Your task to perform on an android device: uninstall "Contacts" Image 0: 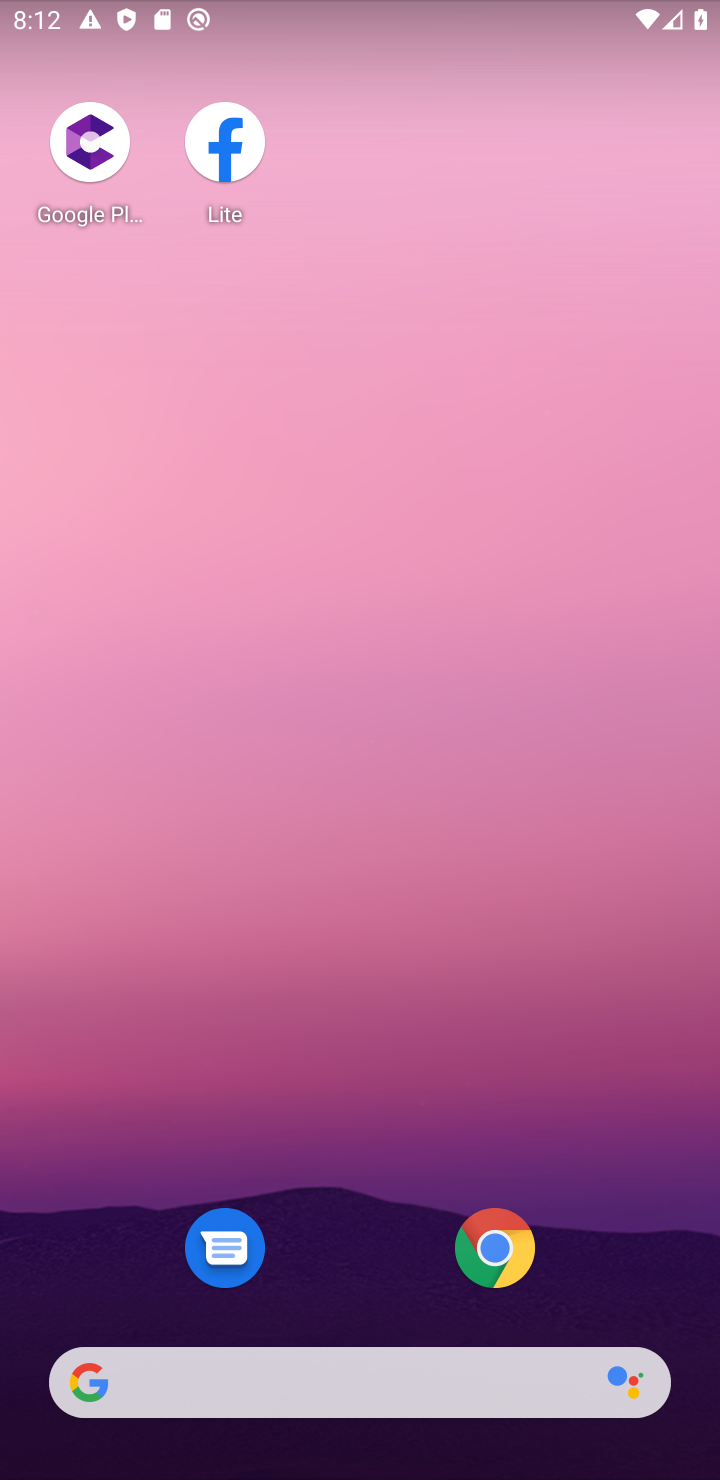
Step 0: click (335, 1272)
Your task to perform on an android device: uninstall "Contacts" Image 1: 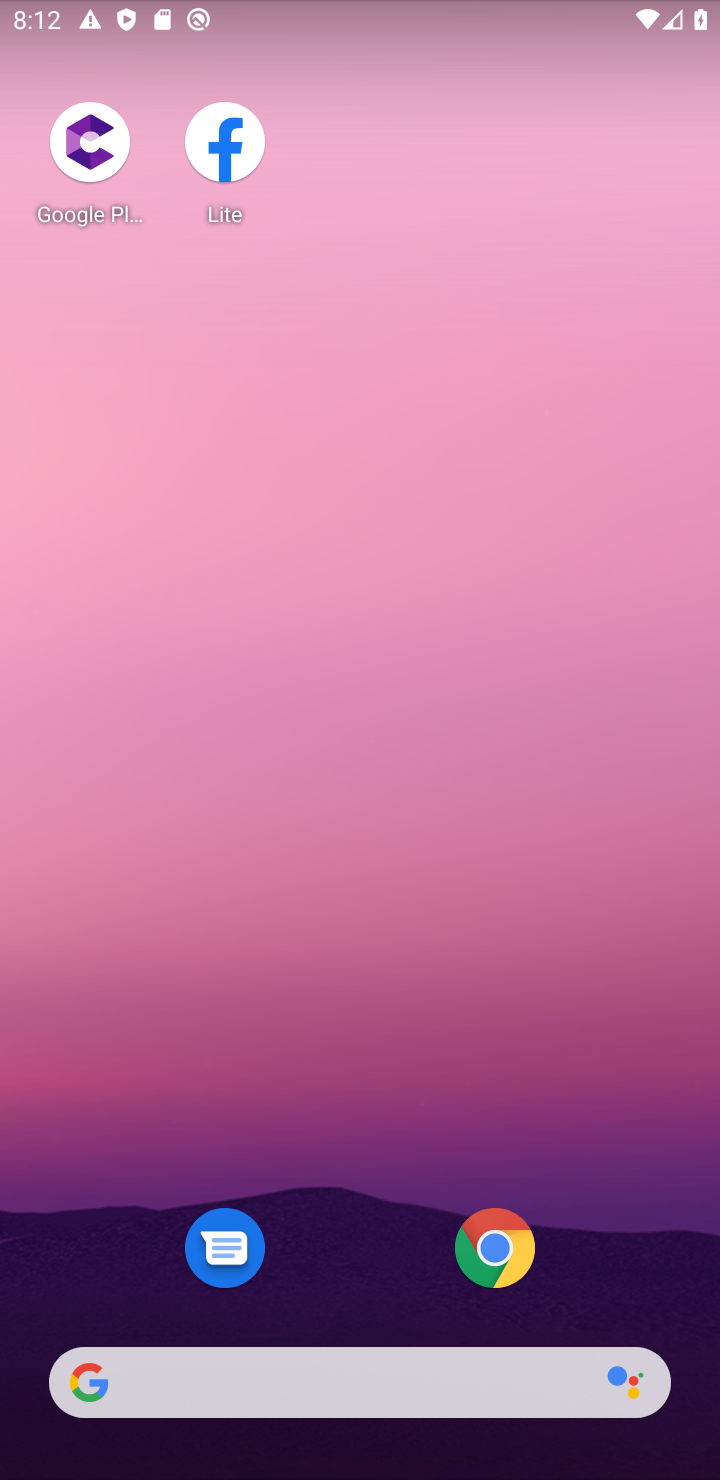
Step 1: drag from (335, 1272) to (8, 37)
Your task to perform on an android device: uninstall "Contacts" Image 2: 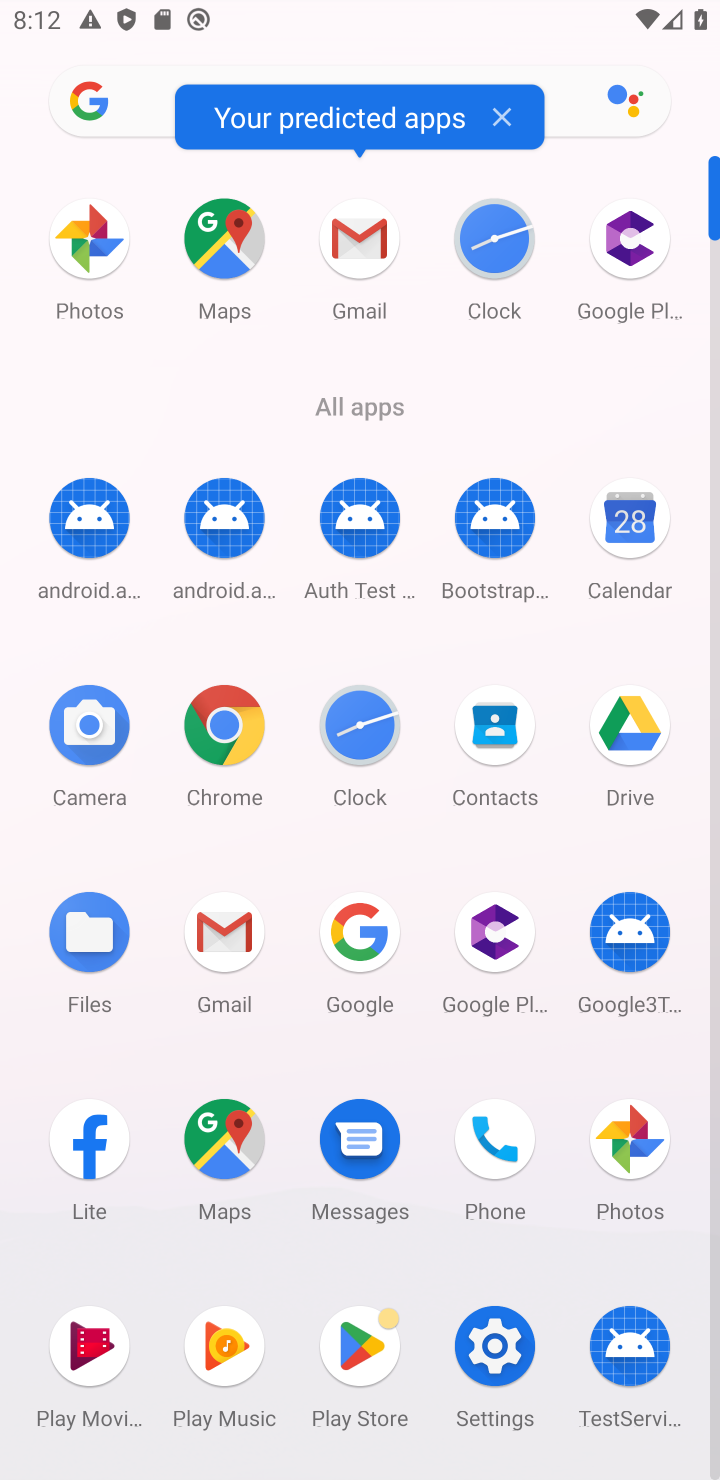
Step 2: click (487, 1318)
Your task to perform on an android device: uninstall "Contacts" Image 3: 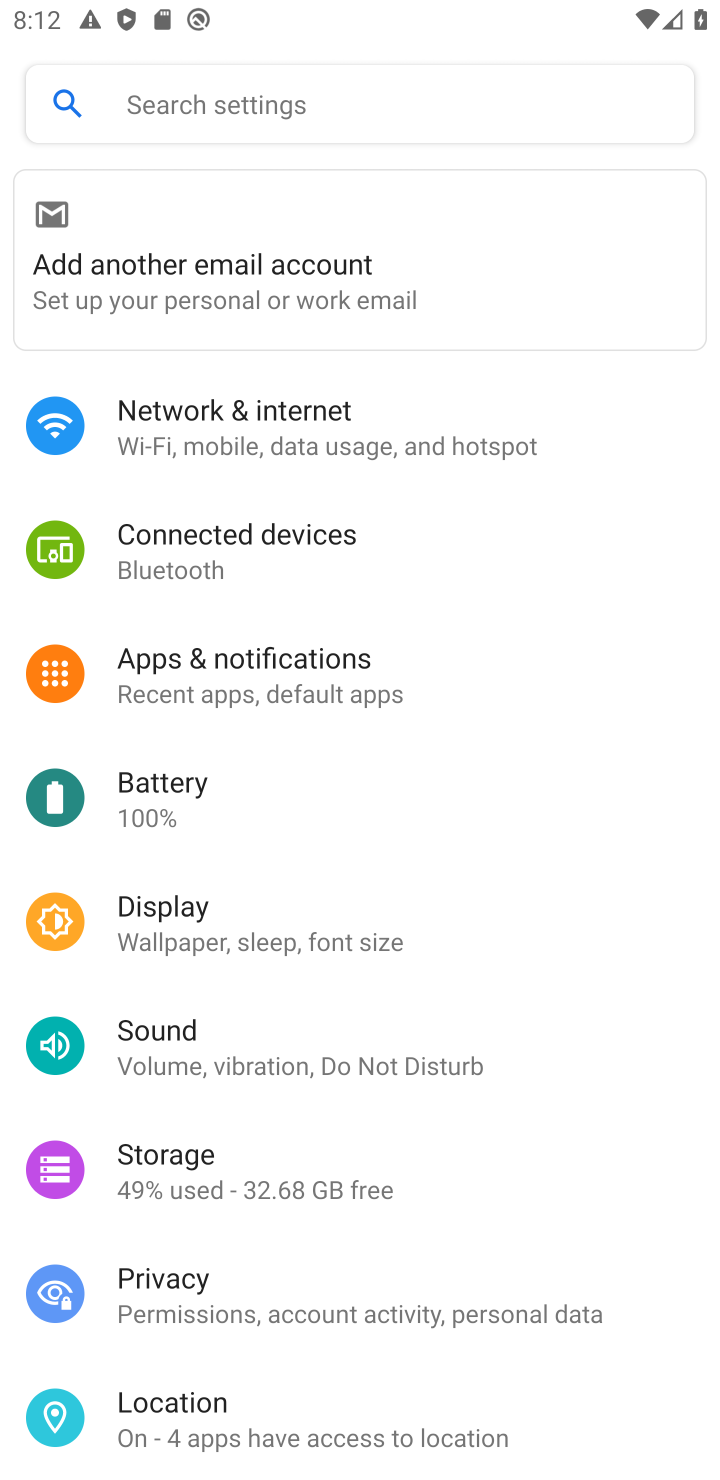
Step 3: click (278, 697)
Your task to perform on an android device: uninstall "Contacts" Image 4: 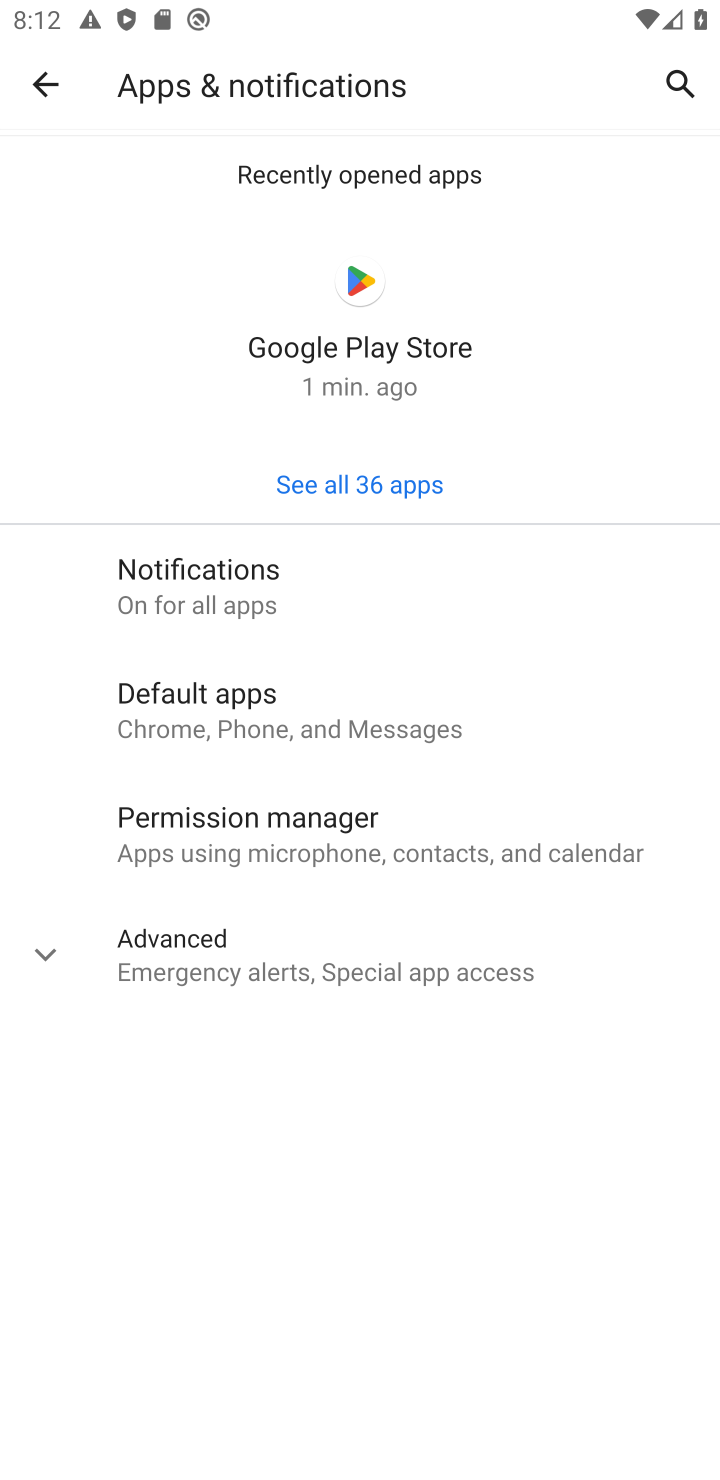
Step 4: click (314, 494)
Your task to perform on an android device: uninstall "Contacts" Image 5: 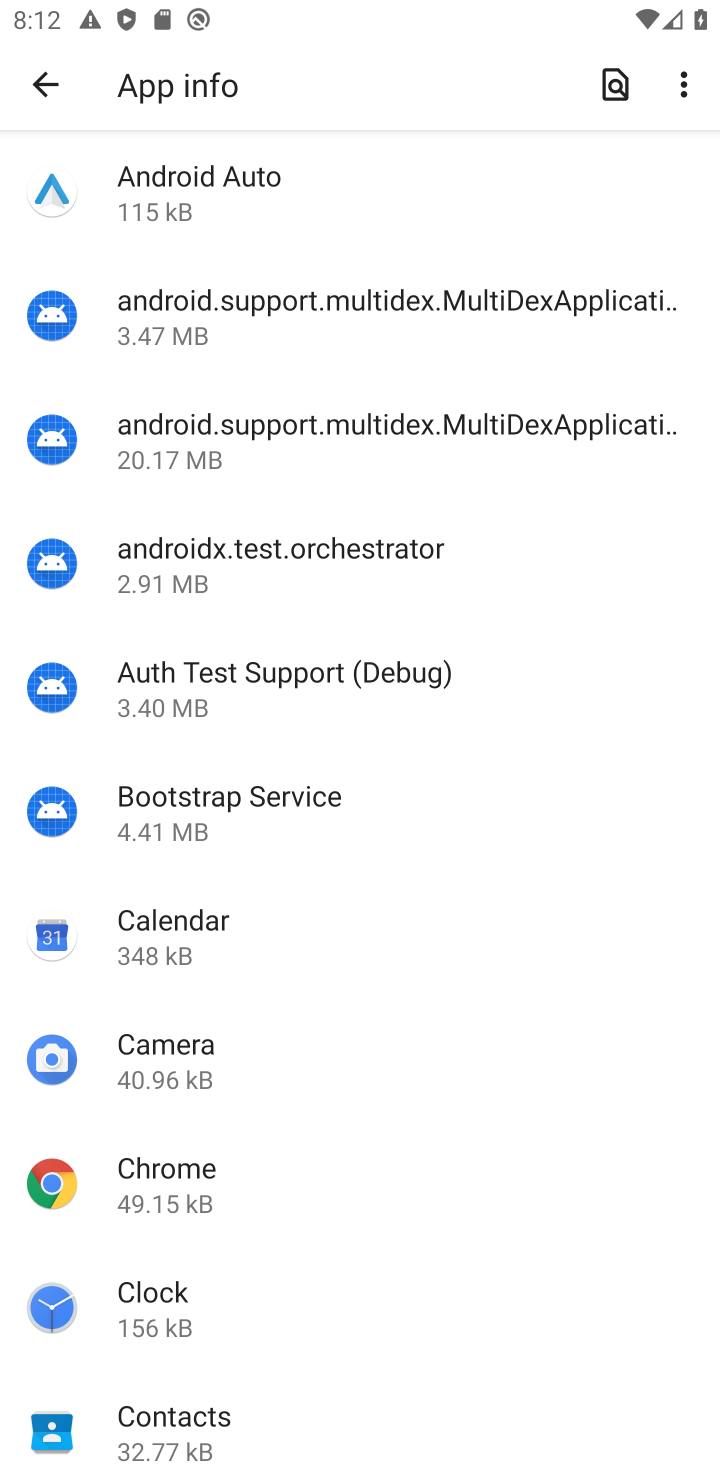
Step 5: click (177, 1458)
Your task to perform on an android device: uninstall "Contacts" Image 6: 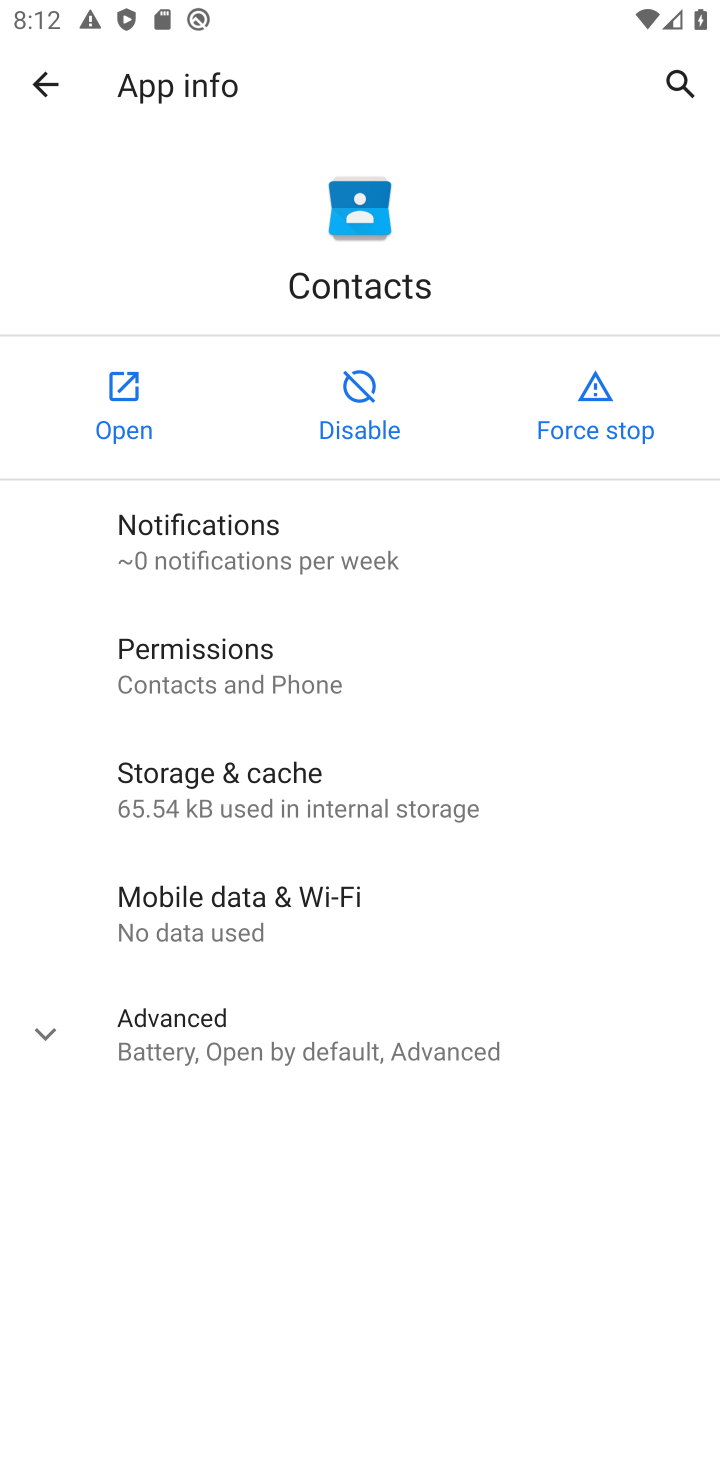
Step 6: task complete